Your task to perform on an android device: turn off location Image 0: 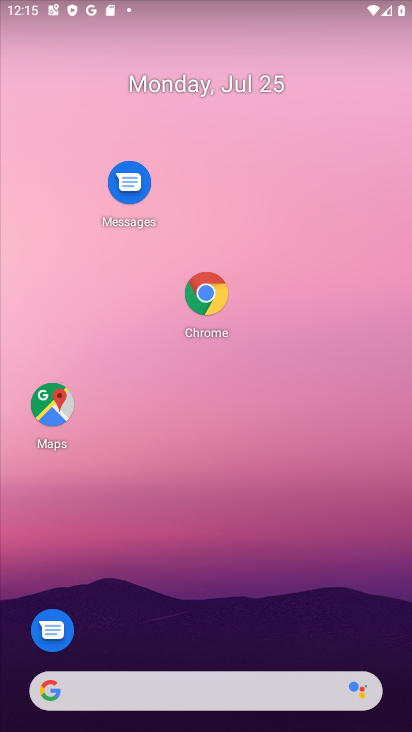
Step 0: press home button
Your task to perform on an android device: turn off location Image 1: 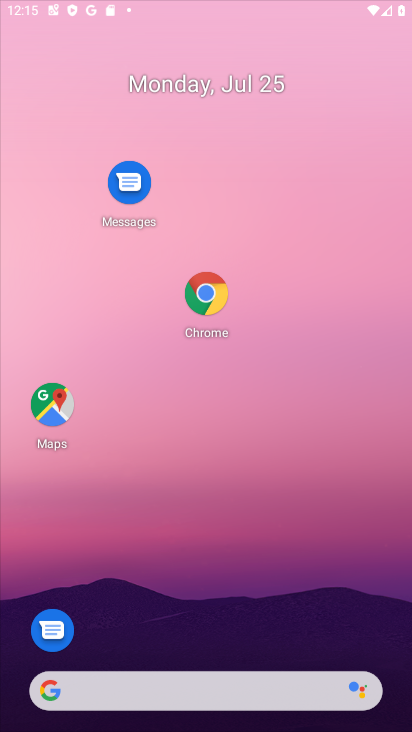
Step 1: drag from (321, 661) to (385, 2)
Your task to perform on an android device: turn off location Image 2: 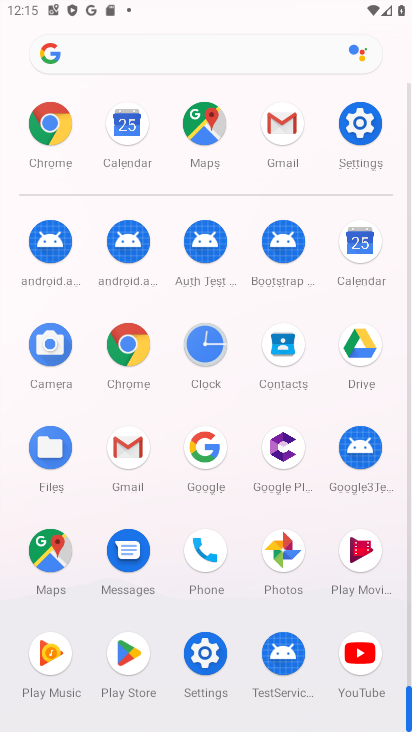
Step 2: click (367, 153)
Your task to perform on an android device: turn off location Image 3: 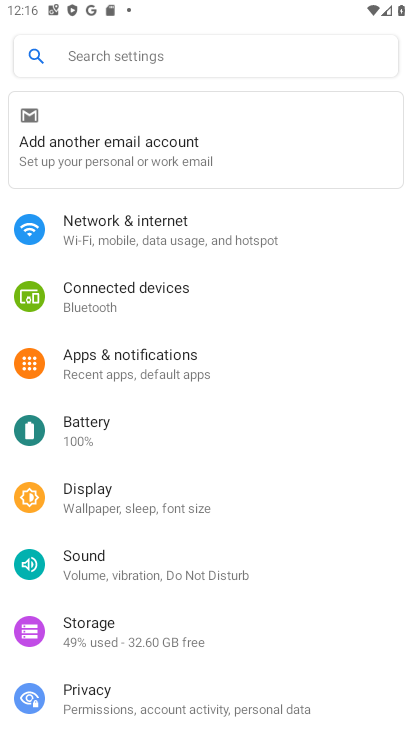
Step 3: drag from (231, 574) to (160, 102)
Your task to perform on an android device: turn off location Image 4: 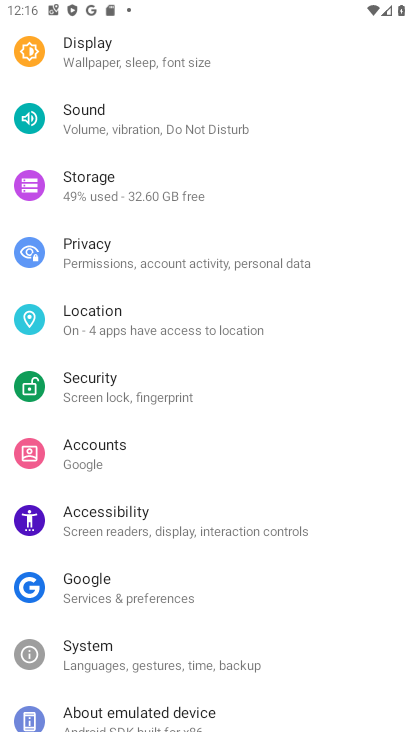
Step 4: click (101, 321)
Your task to perform on an android device: turn off location Image 5: 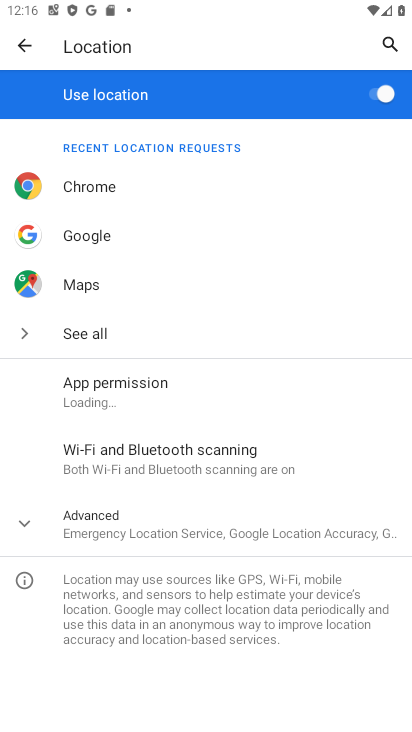
Step 5: click (151, 93)
Your task to perform on an android device: turn off location Image 6: 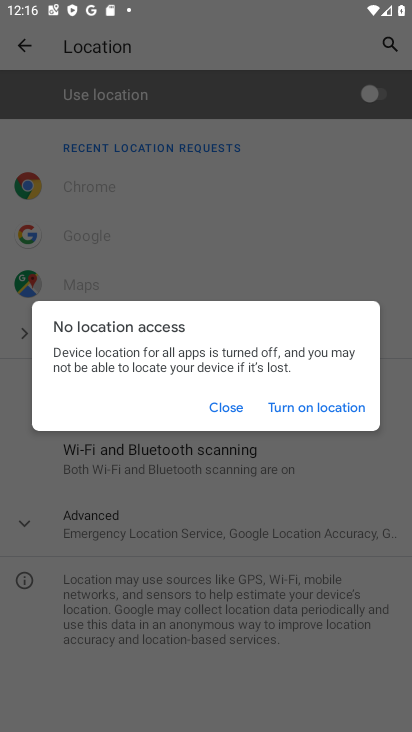
Step 6: task complete